Your task to perform on an android device: delete the emails in spam in the gmail app Image 0: 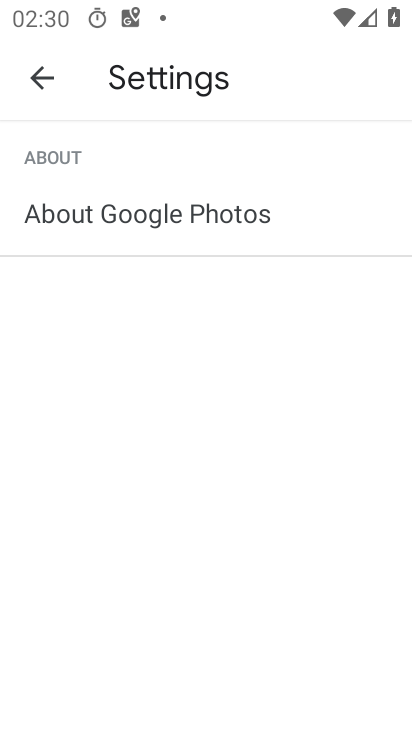
Step 0: press home button
Your task to perform on an android device: delete the emails in spam in the gmail app Image 1: 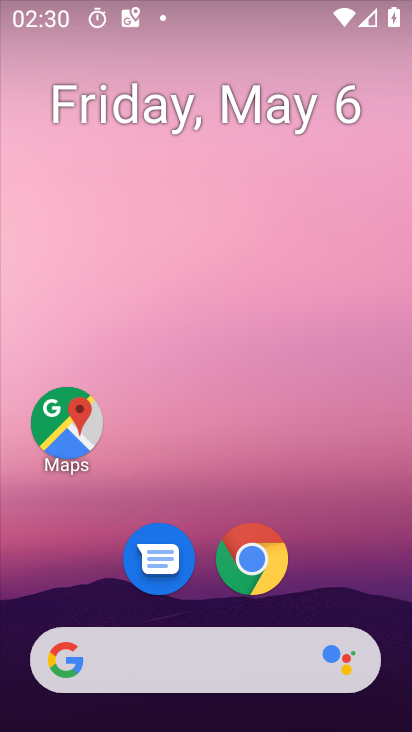
Step 1: drag from (280, 624) to (276, 60)
Your task to perform on an android device: delete the emails in spam in the gmail app Image 2: 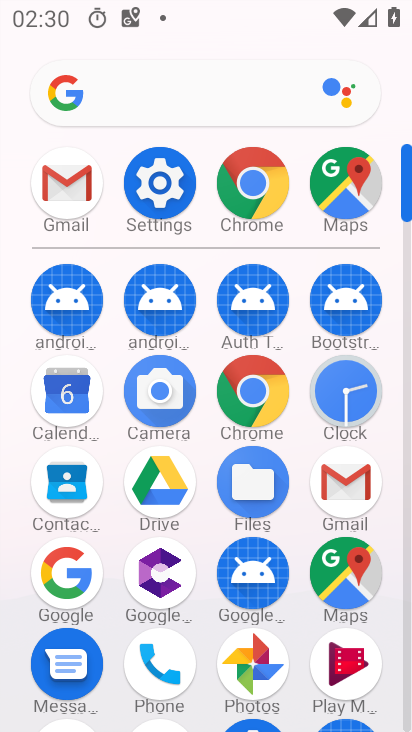
Step 2: click (339, 477)
Your task to perform on an android device: delete the emails in spam in the gmail app Image 3: 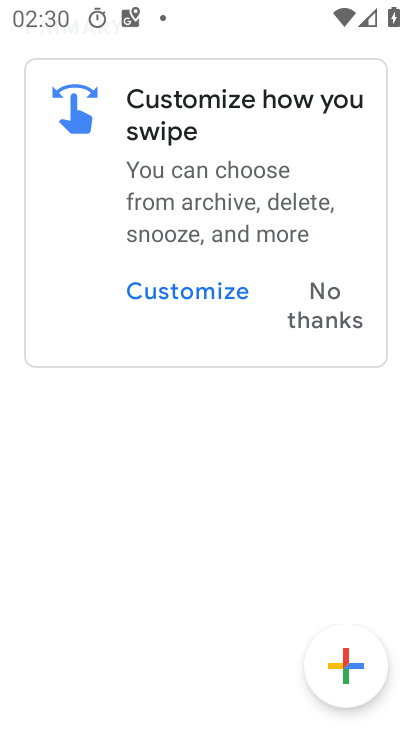
Step 3: click (322, 315)
Your task to perform on an android device: delete the emails in spam in the gmail app Image 4: 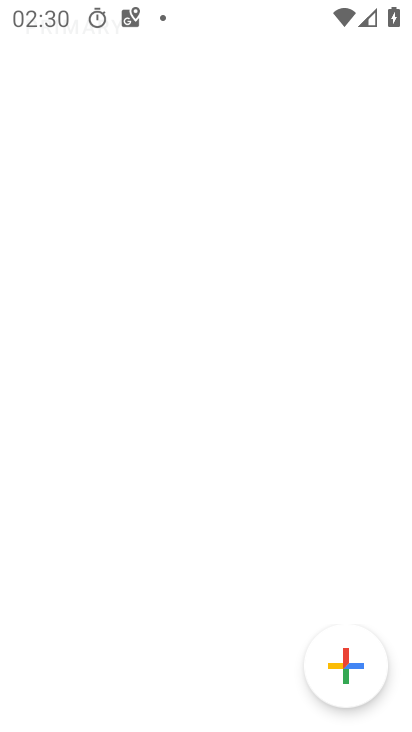
Step 4: press back button
Your task to perform on an android device: delete the emails in spam in the gmail app Image 5: 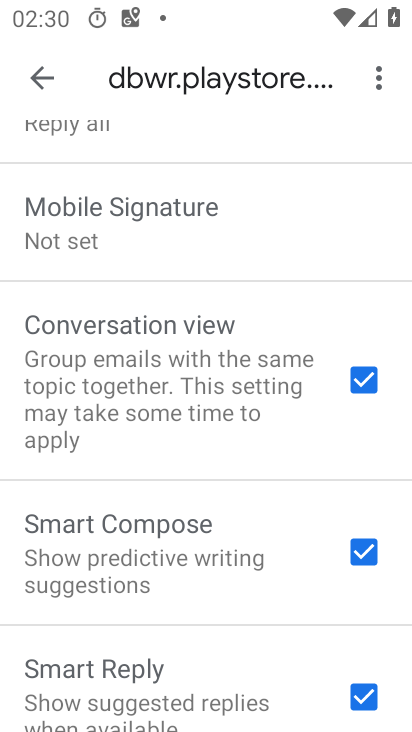
Step 5: press home button
Your task to perform on an android device: delete the emails in spam in the gmail app Image 6: 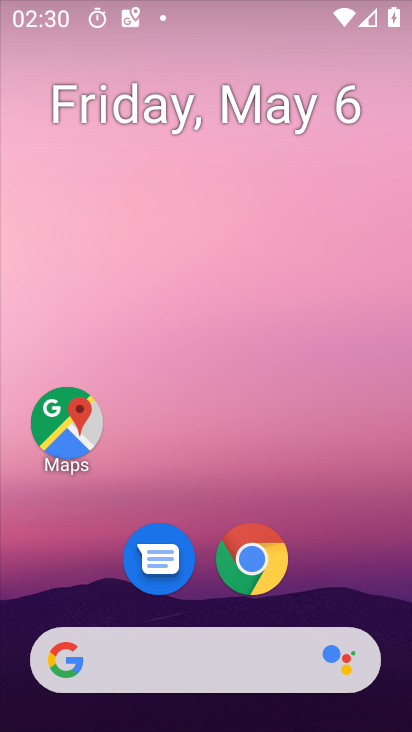
Step 6: drag from (307, 637) to (320, 34)
Your task to perform on an android device: delete the emails in spam in the gmail app Image 7: 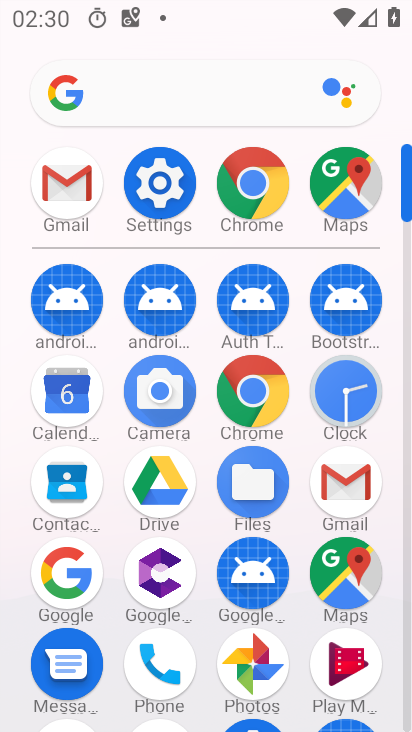
Step 7: click (59, 186)
Your task to perform on an android device: delete the emails in spam in the gmail app Image 8: 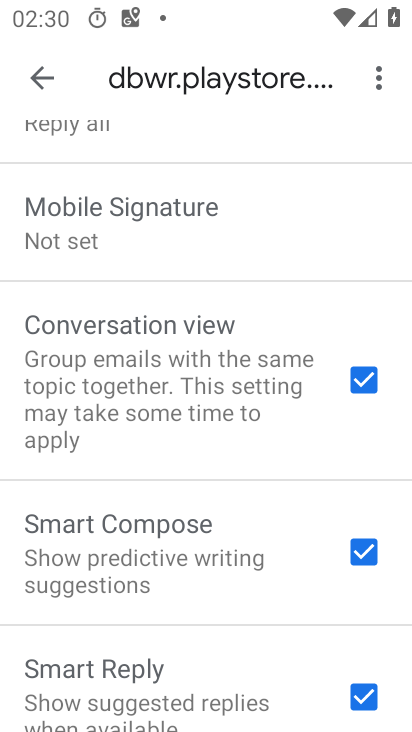
Step 8: press back button
Your task to perform on an android device: delete the emails in spam in the gmail app Image 9: 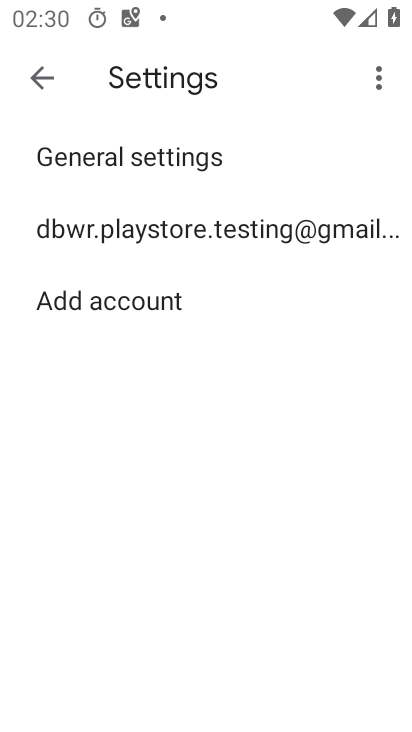
Step 9: press back button
Your task to perform on an android device: delete the emails in spam in the gmail app Image 10: 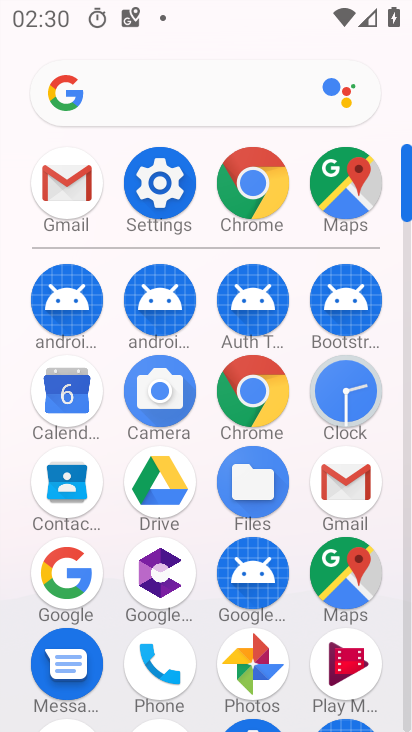
Step 10: click (360, 484)
Your task to perform on an android device: delete the emails in spam in the gmail app Image 11: 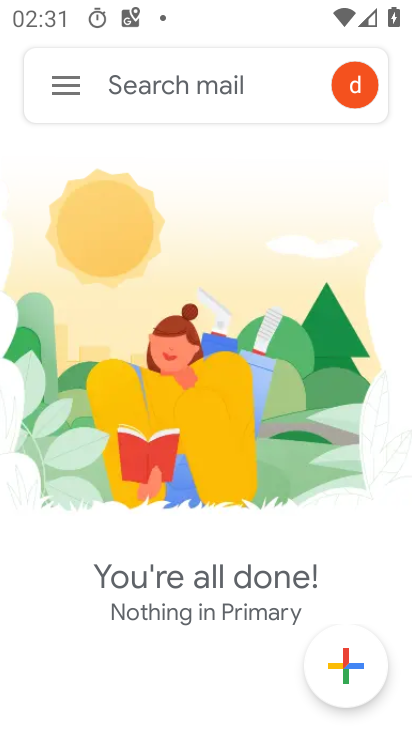
Step 11: click (74, 86)
Your task to perform on an android device: delete the emails in spam in the gmail app Image 12: 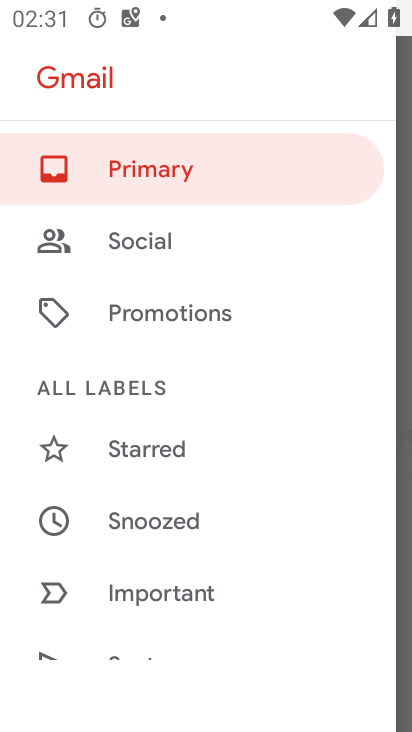
Step 12: drag from (216, 641) to (196, 203)
Your task to perform on an android device: delete the emails in spam in the gmail app Image 13: 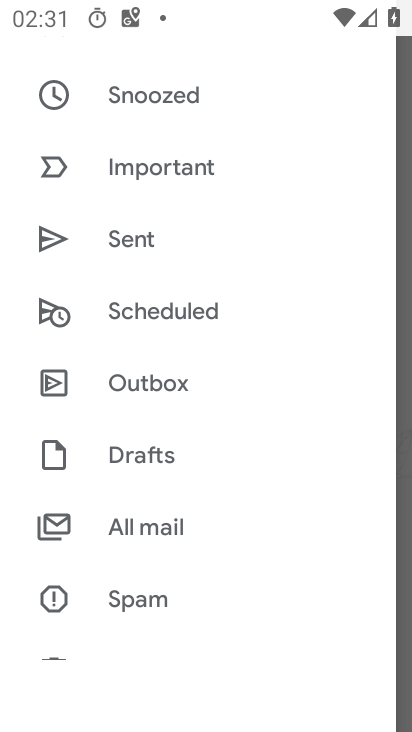
Step 13: click (161, 588)
Your task to perform on an android device: delete the emails in spam in the gmail app Image 14: 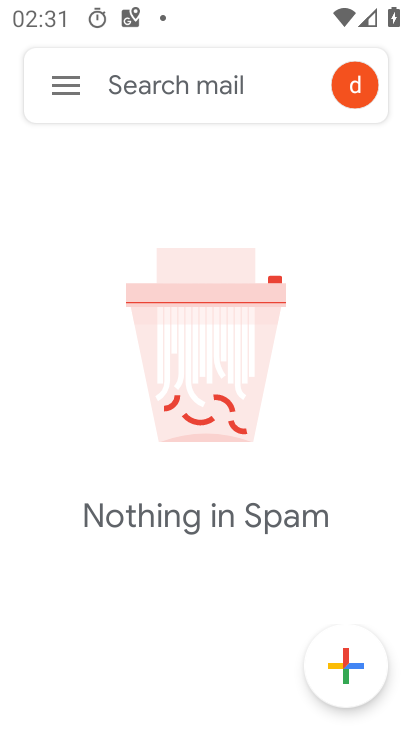
Step 14: task complete